Your task to perform on an android device: turn off picture-in-picture Image 0: 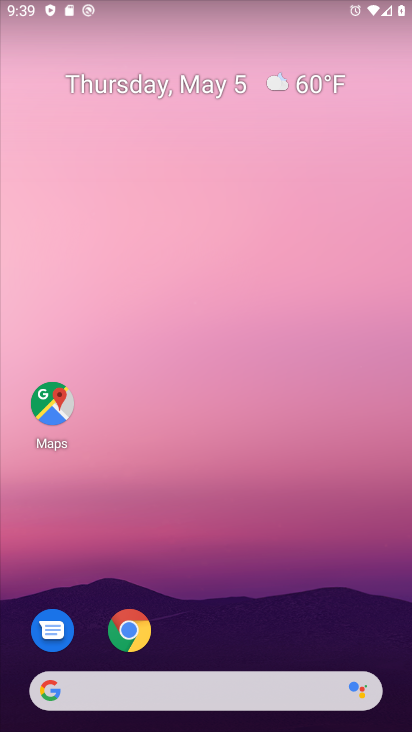
Step 0: drag from (248, 651) to (258, 68)
Your task to perform on an android device: turn off picture-in-picture Image 1: 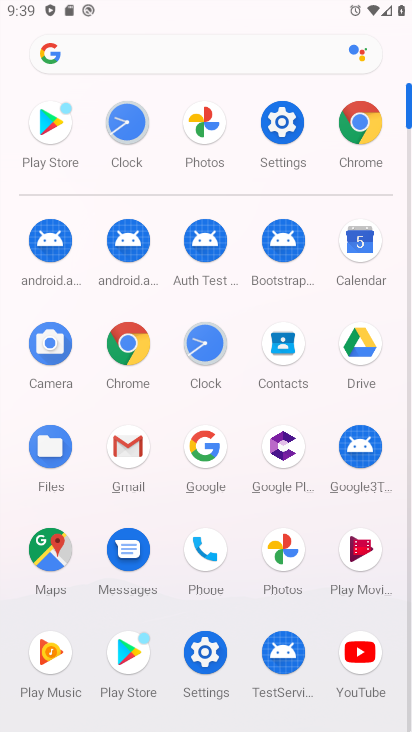
Step 1: click (271, 120)
Your task to perform on an android device: turn off picture-in-picture Image 2: 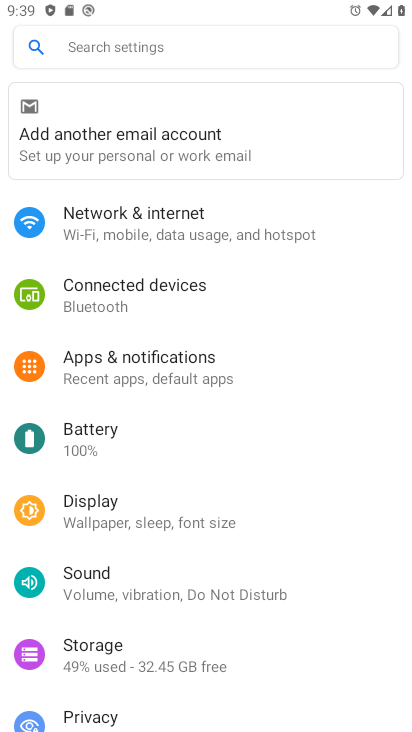
Step 2: click (135, 368)
Your task to perform on an android device: turn off picture-in-picture Image 3: 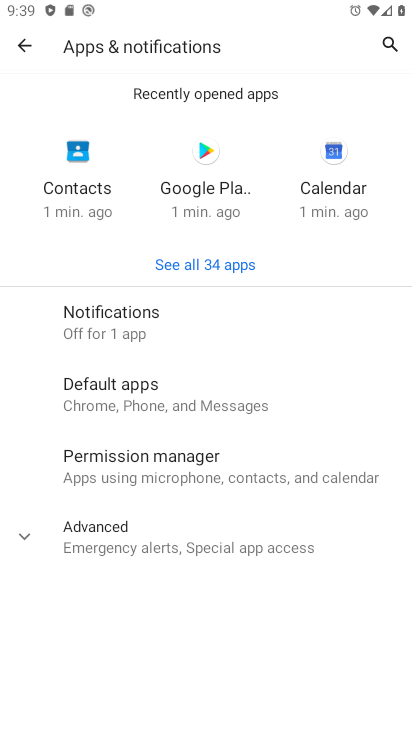
Step 3: click (195, 544)
Your task to perform on an android device: turn off picture-in-picture Image 4: 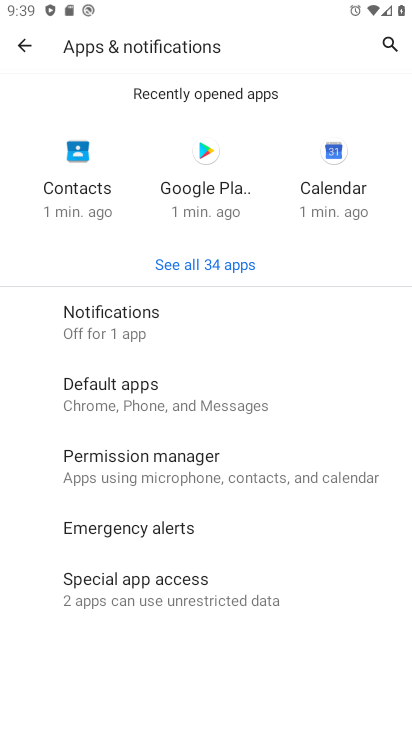
Step 4: click (194, 600)
Your task to perform on an android device: turn off picture-in-picture Image 5: 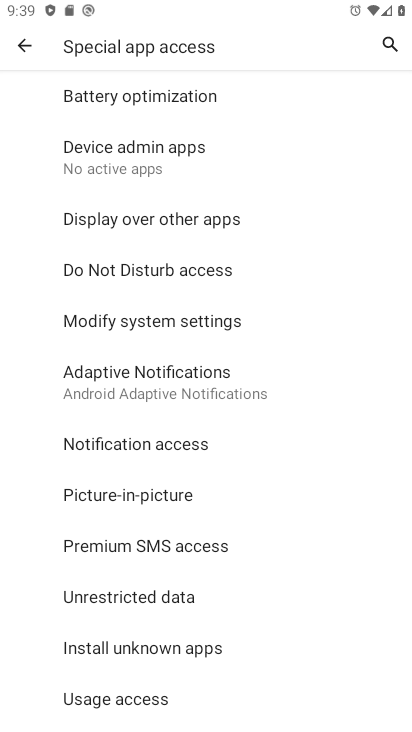
Step 5: click (159, 502)
Your task to perform on an android device: turn off picture-in-picture Image 6: 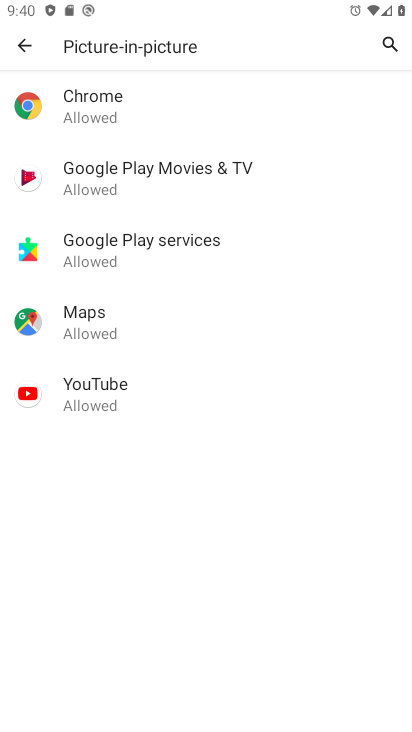
Step 6: click (196, 107)
Your task to perform on an android device: turn off picture-in-picture Image 7: 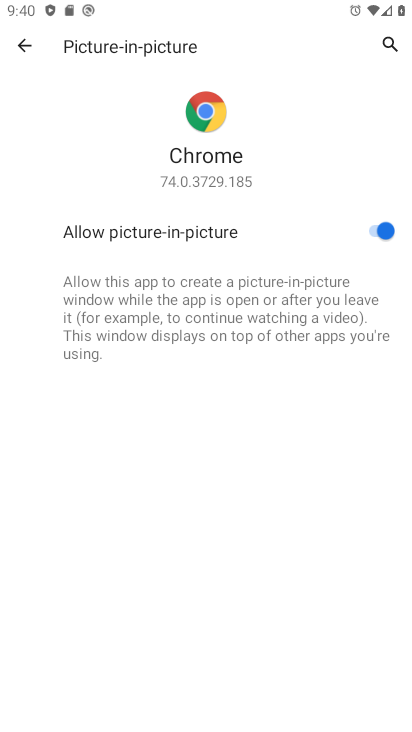
Step 7: click (374, 228)
Your task to perform on an android device: turn off picture-in-picture Image 8: 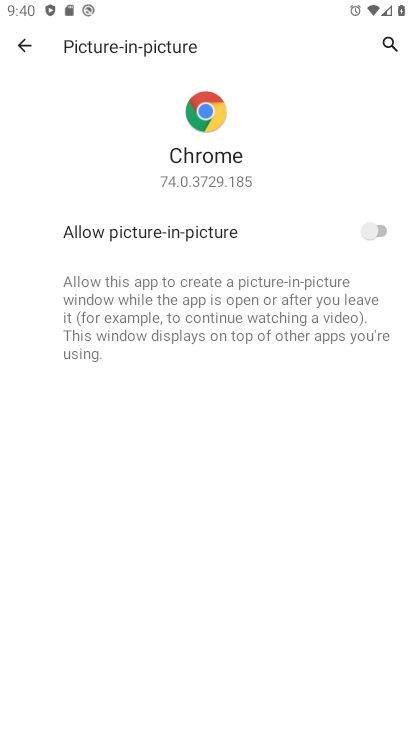
Step 8: task complete